Your task to perform on an android device: find snoozed emails in the gmail app Image 0: 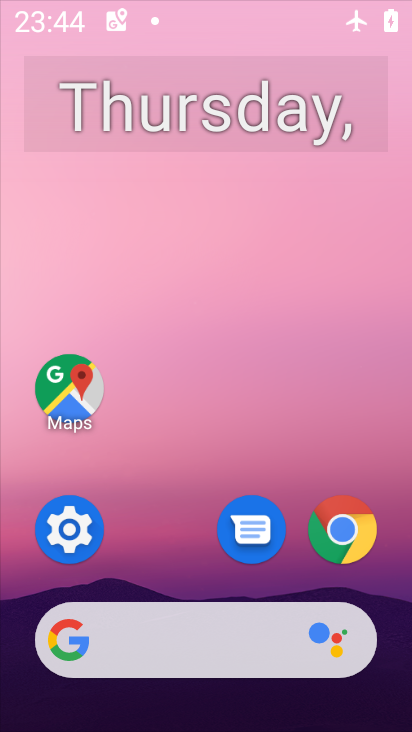
Step 0: click (56, 535)
Your task to perform on an android device: find snoozed emails in the gmail app Image 1: 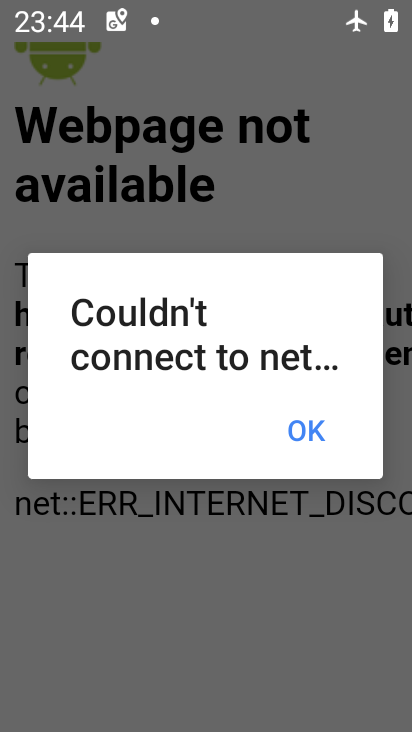
Step 1: press home button
Your task to perform on an android device: find snoozed emails in the gmail app Image 2: 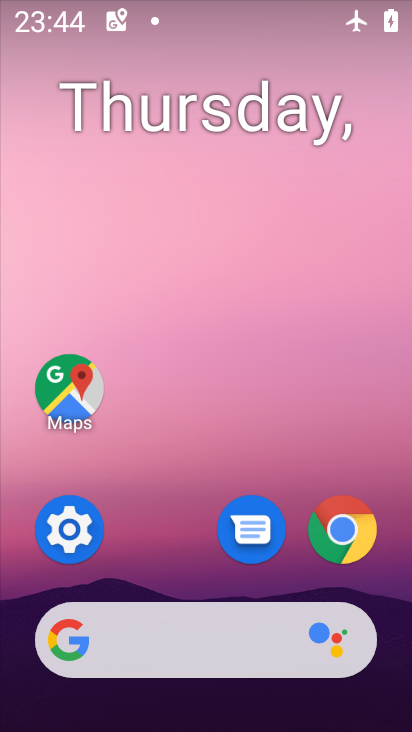
Step 2: drag from (194, 692) to (149, 154)
Your task to perform on an android device: find snoozed emails in the gmail app Image 3: 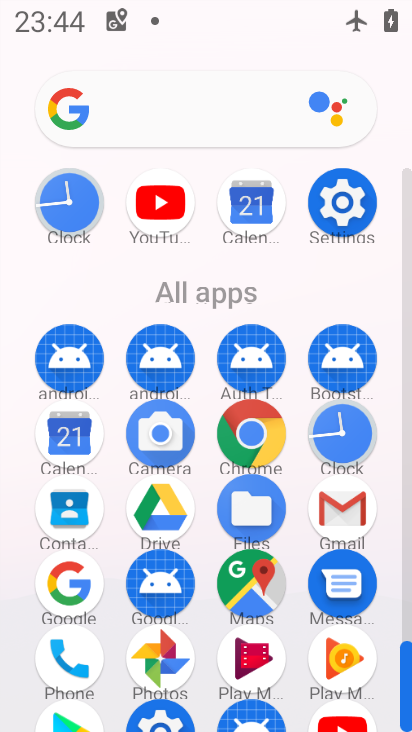
Step 3: click (348, 498)
Your task to perform on an android device: find snoozed emails in the gmail app Image 4: 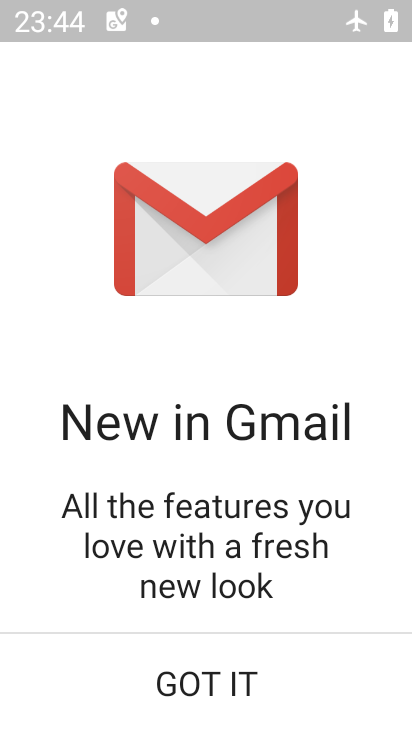
Step 4: click (243, 697)
Your task to perform on an android device: find snoozed emails in the gmail app Image 5: 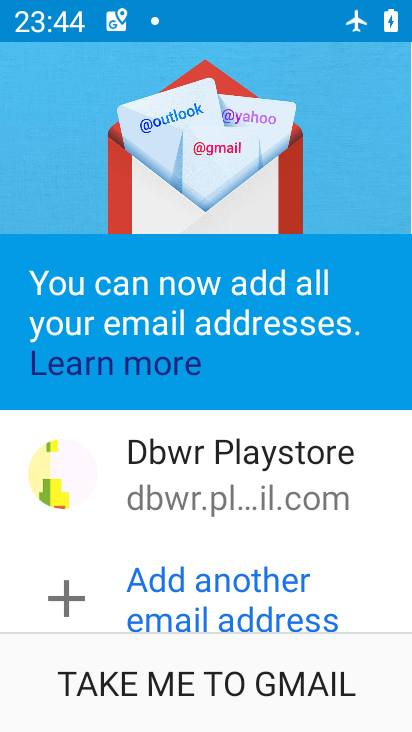
Step 5: click (238, 689)
Your task to perform on an android device: find snoozed emails in the gmail app Image 6: 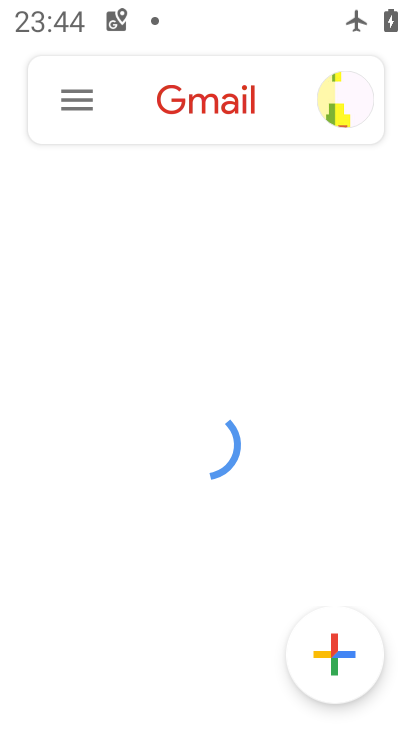
Step 6: click (62, 89)
Your task to perform on an android device: find snoozed emails in the gmail app Image 7: 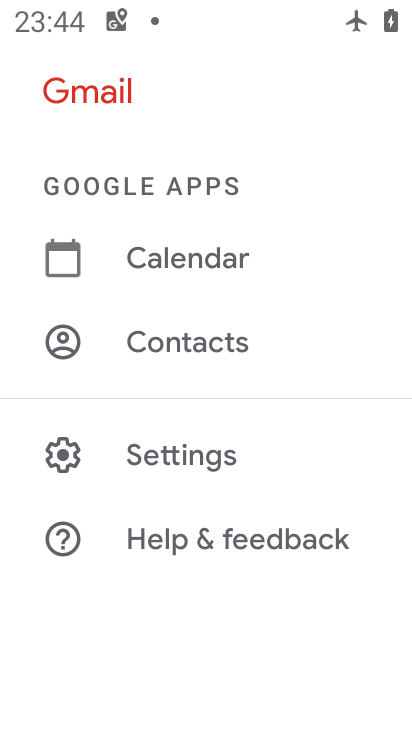
Step 7: drag from (256, 306) to (296, 727)
Your task to perform on an android device: find snoozed emails in the gmail app Image 8: 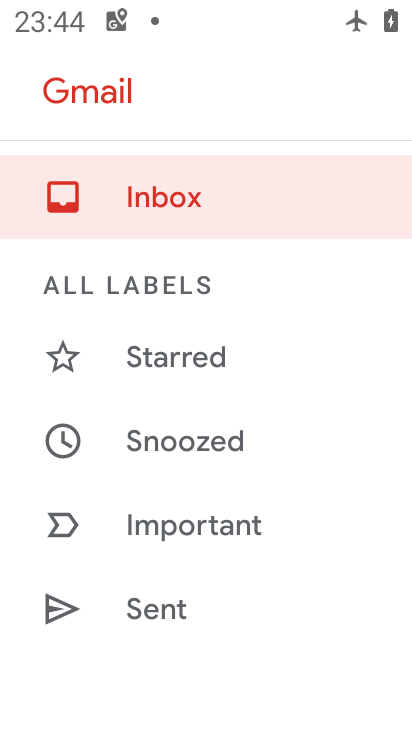
Step 8: click (209, 456)
Your task to perform on an android device: find snoozed emails in the gmail app Image 9: 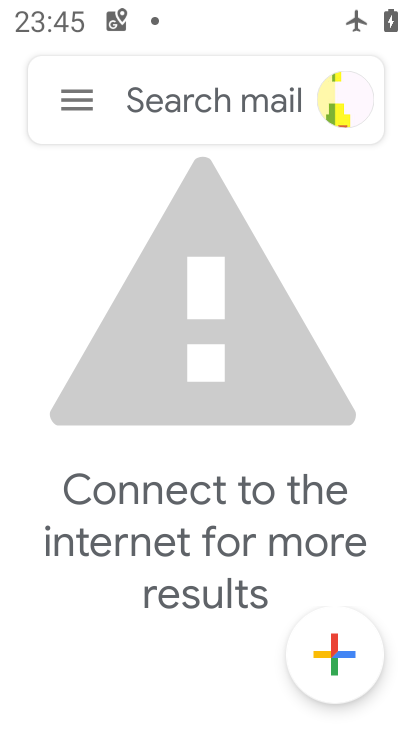
Step 9: task complete